Your task to perform on an android device: turn vacation reply on in the gmail app Image 0: 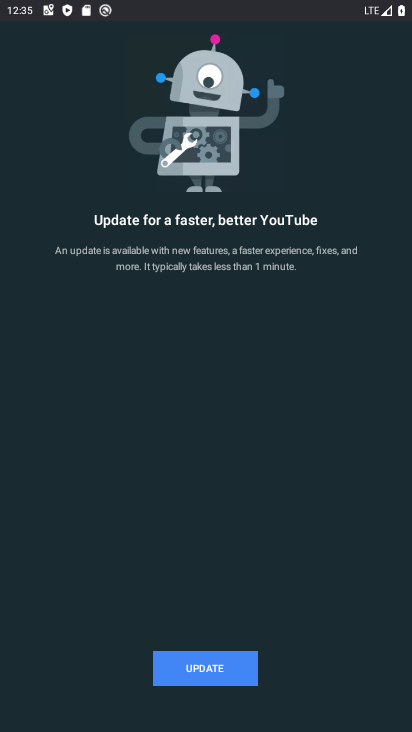
Step 0: press home button
Your task to perform on an android device: turn vacation reply on in the gmail app Image 1: 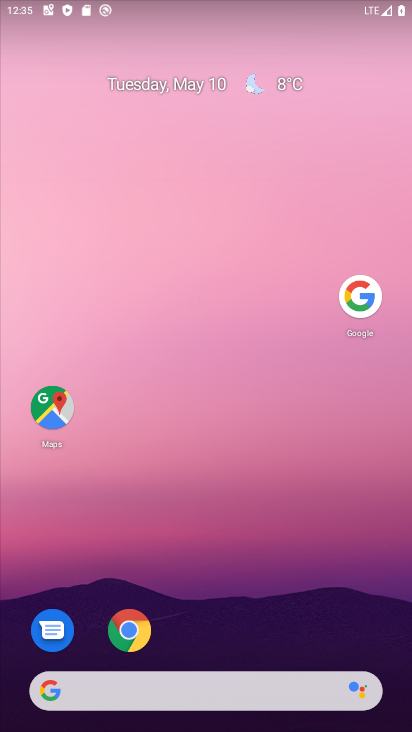
Step 1: drag from (108, 697) to (265, 252)
Your task to perform on an android device: turn vacation reply on in the gmail app Image 2: 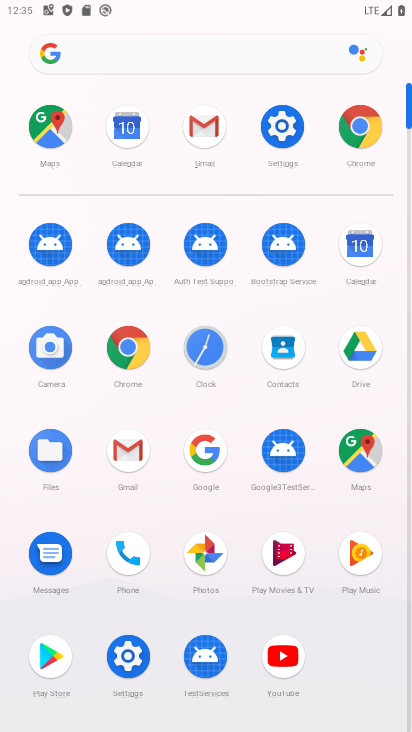
Step 2: click (200, 135)
Your task to perform on an android device: turn vacation reply on in the gmail app Image 3: 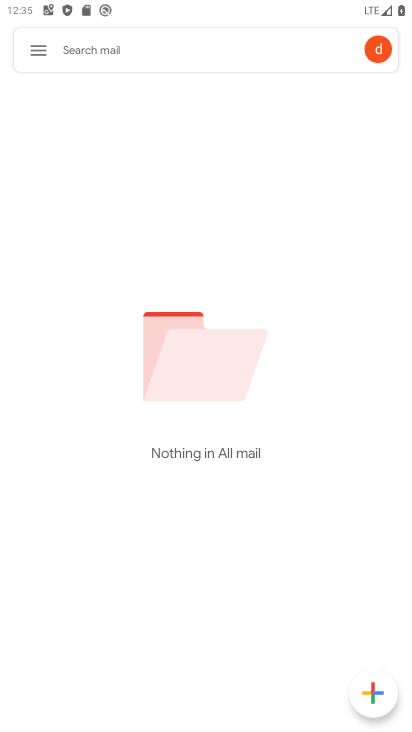
Step 3: click (39, 46)
Your task to perform on an android device: turn vacation reply on in the gmail app Image 4: 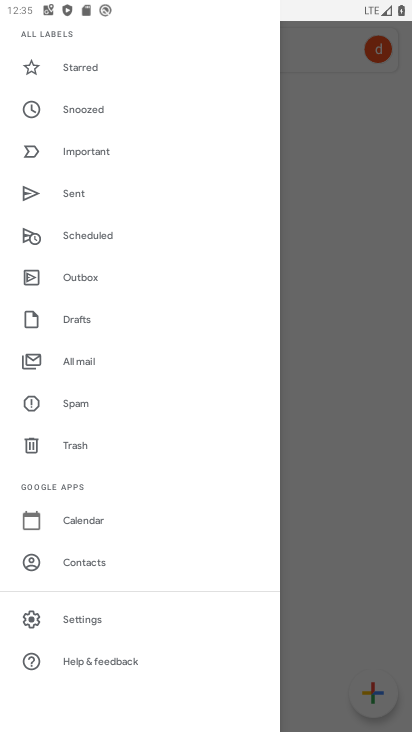
Step 4: click (99, 621)
Your task to perform on an android device: turn vacation reply on in the gmail app Image 5: 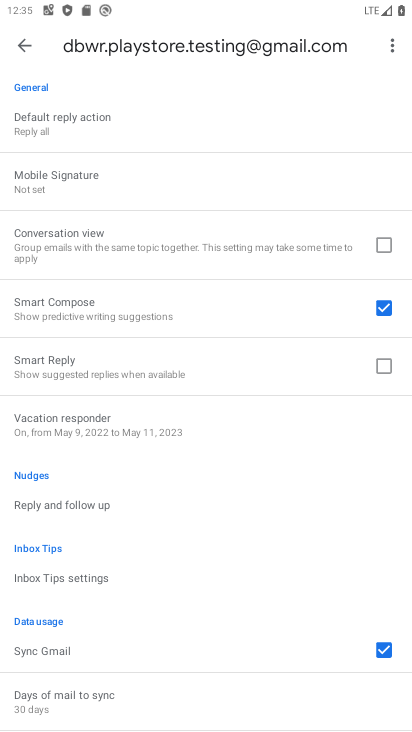
Step 5: click (101, 416)
Your task to perform on an android device: turn vacation reply on in the gmail app Image 6: 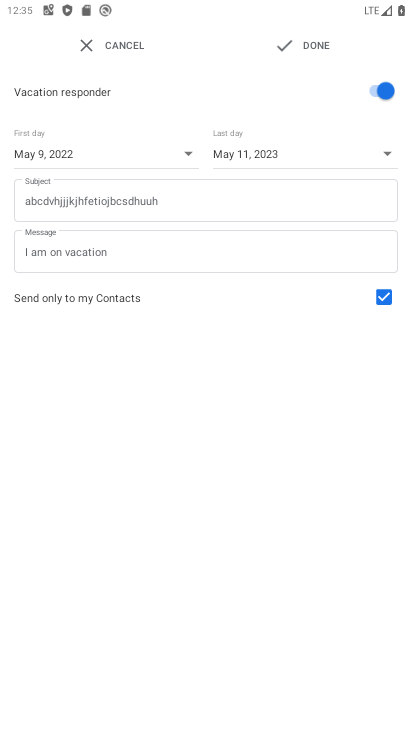
Step 6: task complete